Your task to perform on an android device: Open settings Image 0: 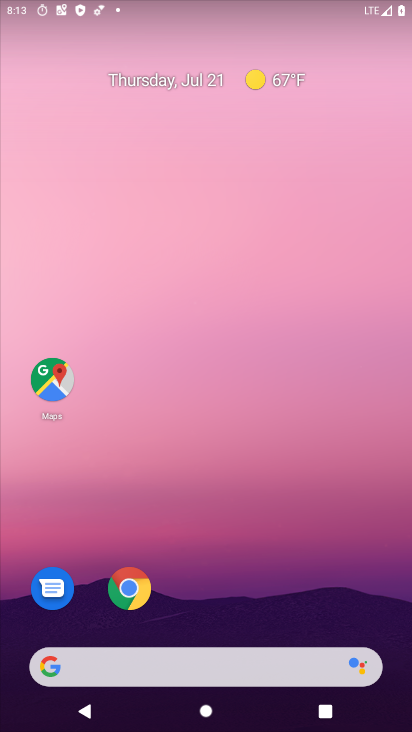
Step 0: drag from (171, 642) to (267, 162)
Your task to perform on an android device: Open settings Image 1: 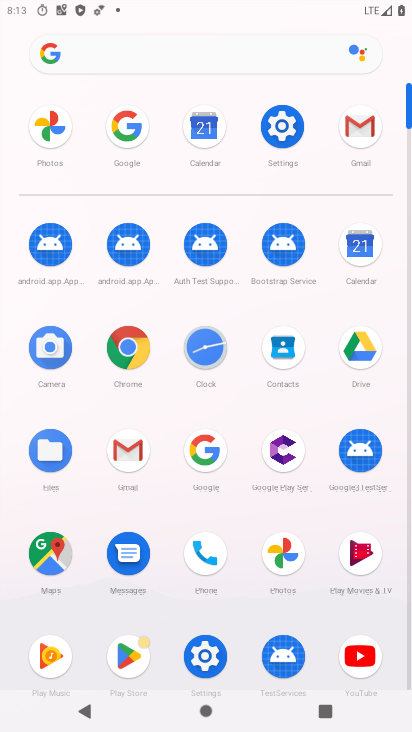
Step 1: click (279, 123)
Your task to perform on an android device: Open settings Image 2: 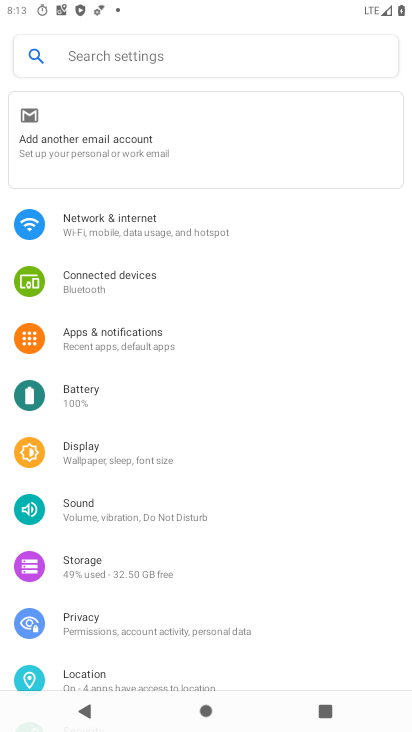
Step 2: click (115, 678)
Your task to perform on an android device: Open settings Image 3: 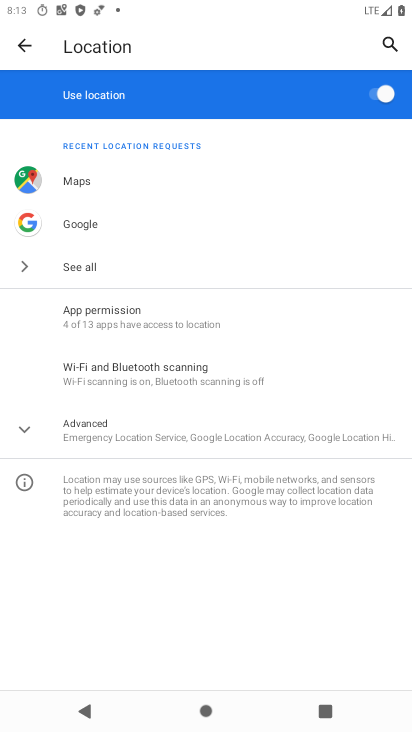
Step 3: click (178, 436)
Your task to perform on an android device: Open settings Image 4: 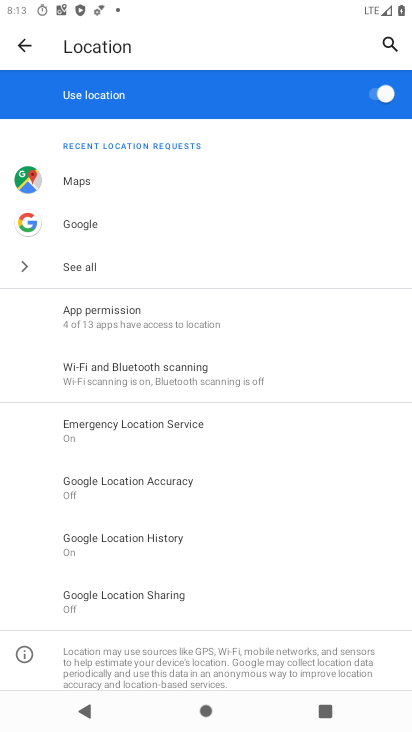
Step 4: task complete